Your task to perform on an android device: clear all cookies in the chrome app Image 0: 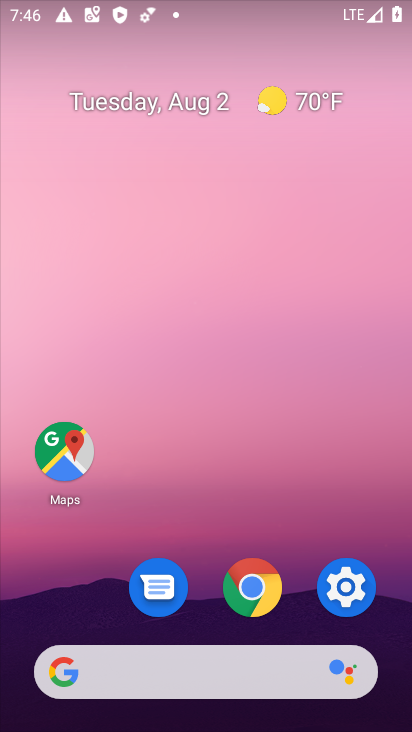
Step 0: press home button
Your task to perform on an android device: clear all cookies in the chrome app Image 1: 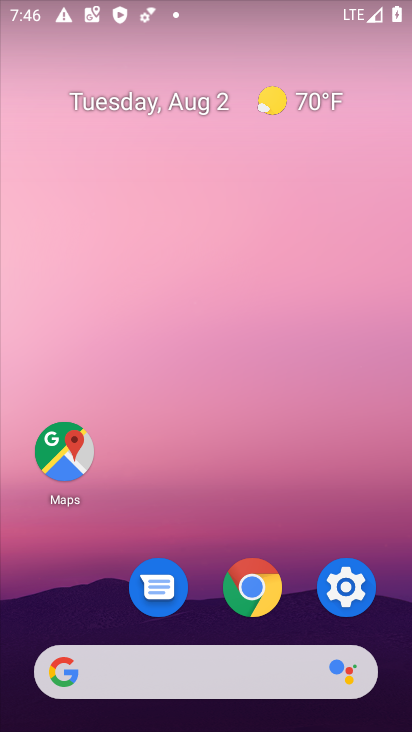
Step 1: click (249, 599)
Your task to perform on an android device: clear all cookies in the chrome app Image 2: 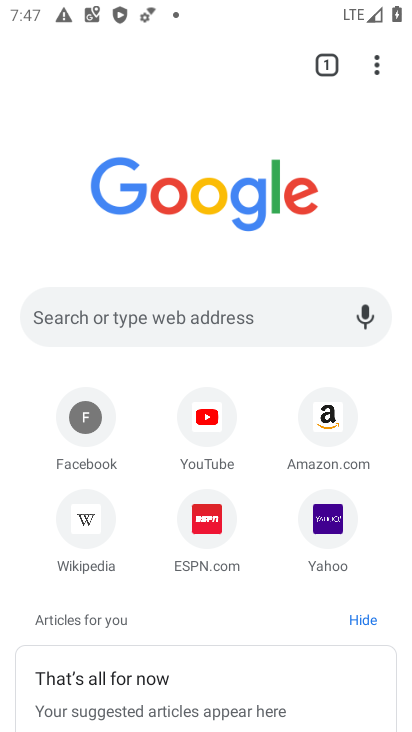
Step 2: click (371, 74)
Your task to perform on an android device: clear all cookies in the chrome app Image 3: 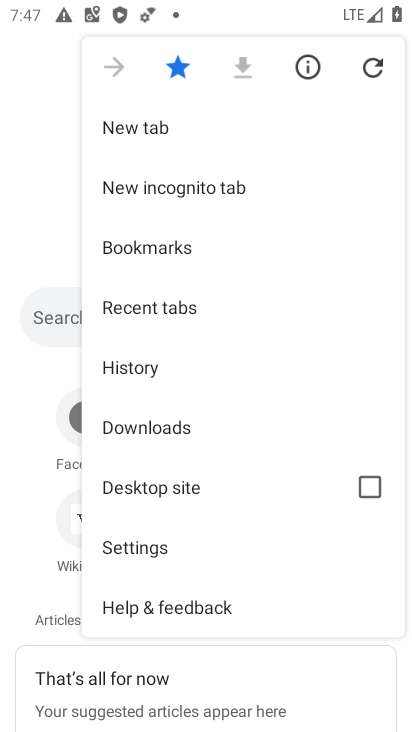
Step 3: click (151, 374)
Your task to perform on an android device: clear all cookies in the chrome app Image 4: 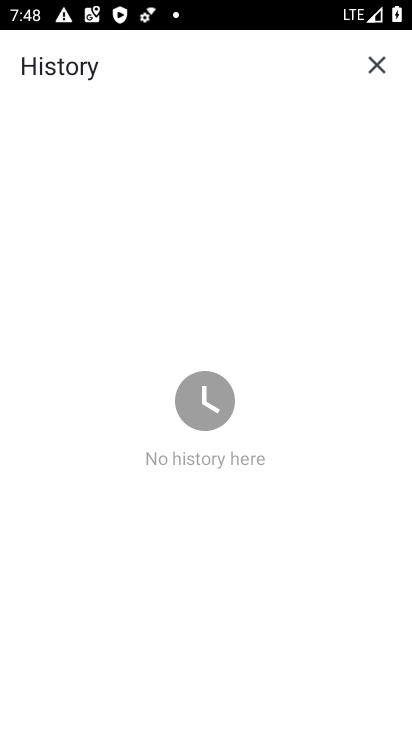
Step 4: task complete